Your task to perform on an android device: Go to Google maps Image 0: 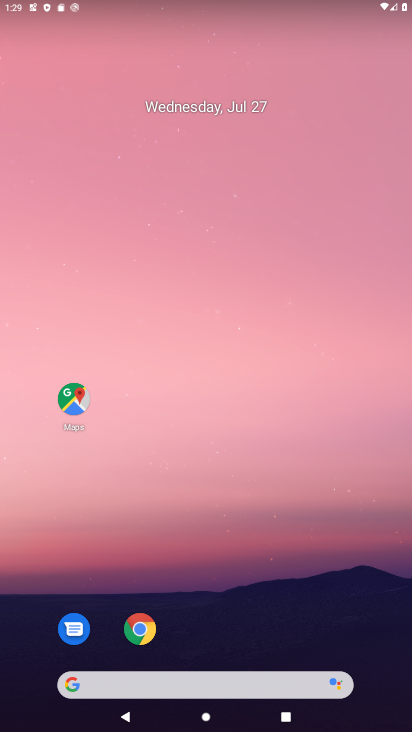
Step 0: click (75, 391)
Your task to perform on an android device: Go to Google maps Image 1: 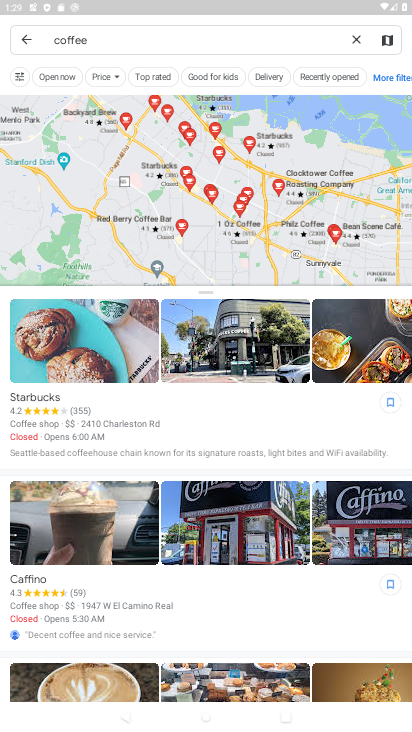
Step 1: task complete